Your task to perform on an android device: allow notifications from all sites in the chrome app Image 0: 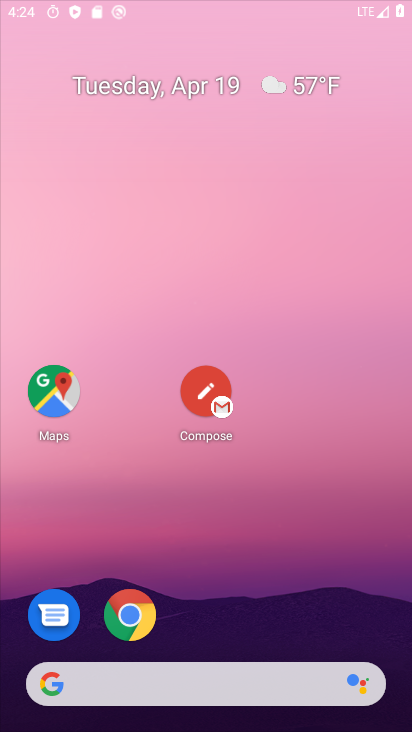
Step 0: drag from (268, 432) to (201, 2)
Your task to perform on an android device: allow notifications from all sites in the chrome app Image 1: 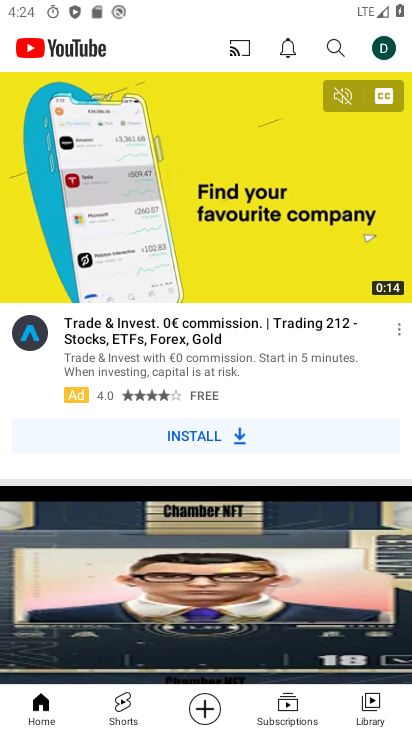
Step 1: press home button
Your task to perform on an android device: allow notifications from all sites in the chrome app Image 2: 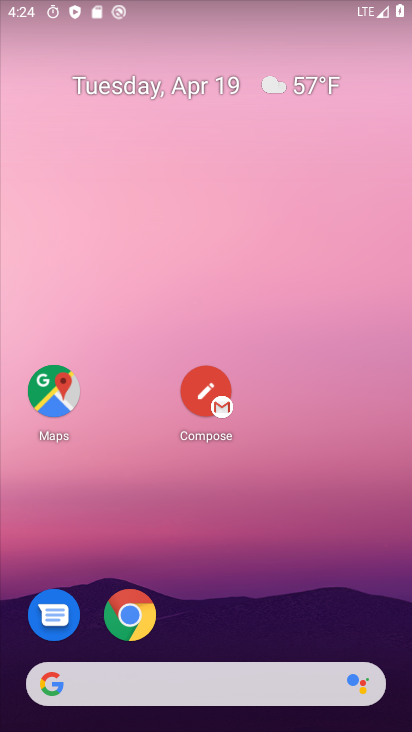
Step 2: drag from (267, 401) to (201, 46)
Your task to perform on an android device: allow notifications from all sites in the chrome app Image 3: 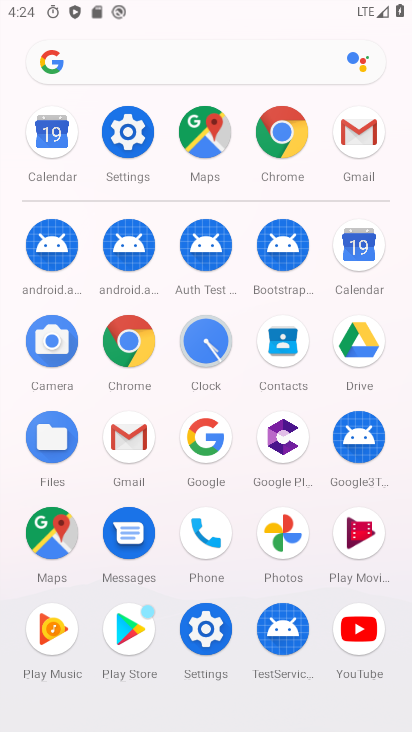
Step 3: click (133, 347)
Your task to perform on an android device: allow notifications from all sites in the chrome app Image 4: 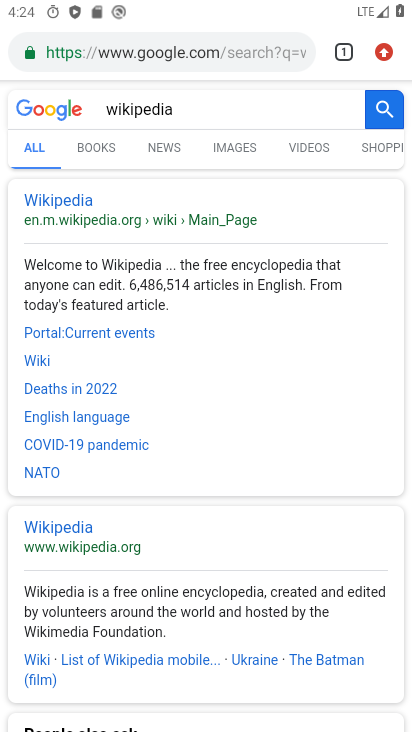
Step 4: click (384, 51)
Your task to perform on an android device: allow notifications from all sites in the chrome app Image 5: 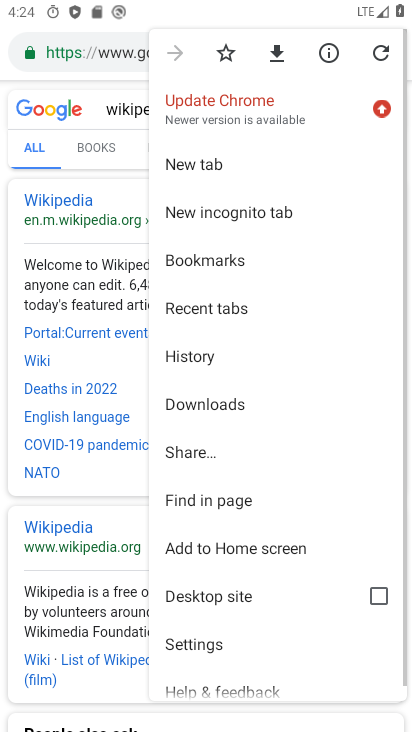
Step 5: drag from (301, 531) to (303, 237)
Your task to perform on an android device: allow notifications from all sites in the chrome app Image 6: 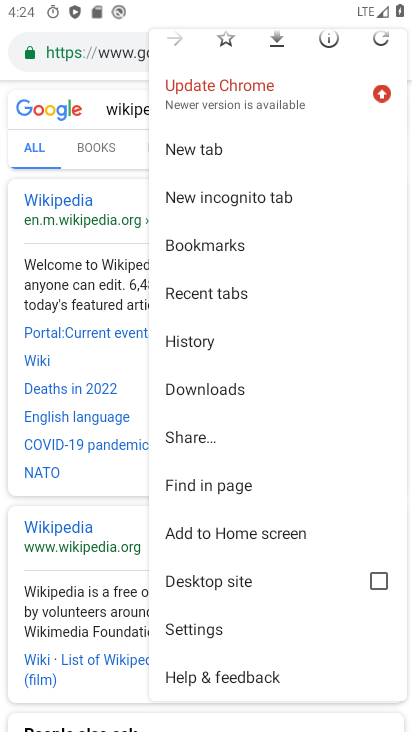
Step 6: click (218, 637)
Your task to perform on an android device: allow notifications from all sites in the chrome app Image 7: 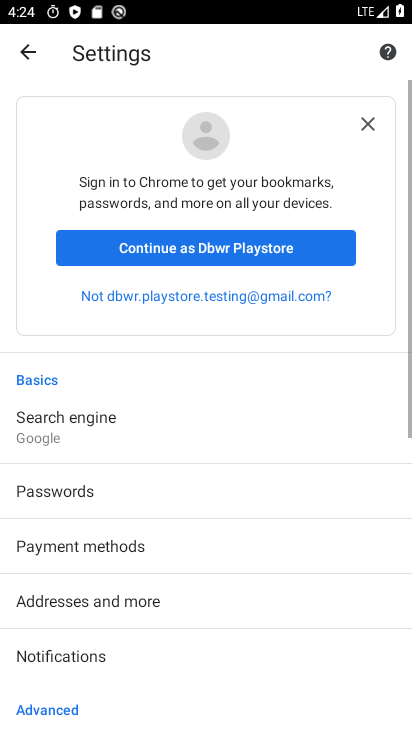
Step 7: drag from (195, 625) to (210, 188)
Your task to perform on an android device: allow notifications from all sites in the chrome app Image 8: 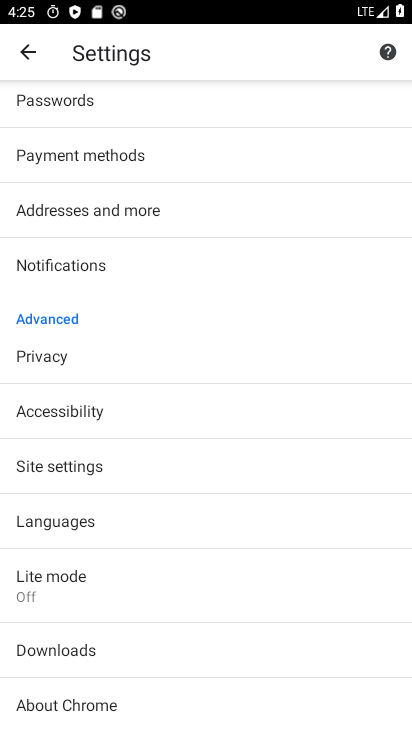
Step 8: click (139, 476)
Your task to perform on an android device: allow notifications from all sites in the chrome app Image 9: 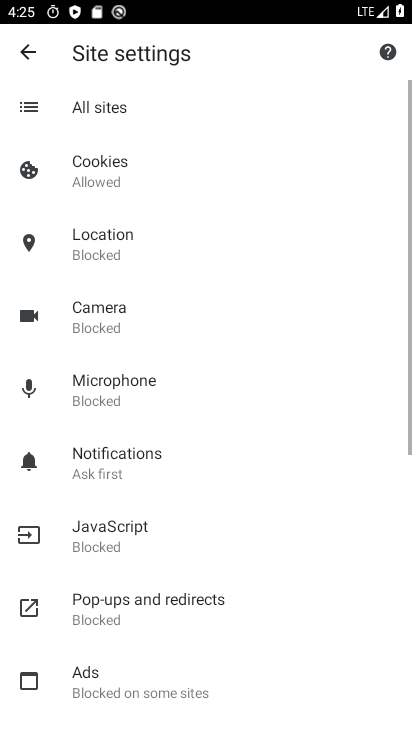
Step 9: drag from (127, 550) to (130, 244)
Your task to perform on an android device: allow notifications from all sites in the chrome app Image 10: 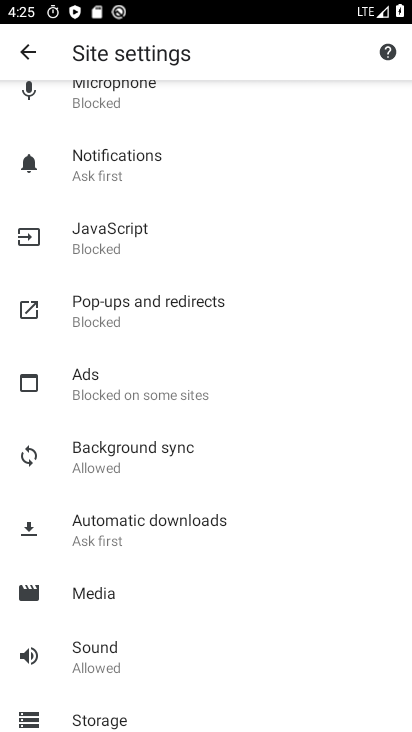
Step 10: click (119, 164)
Your task to perform on an android device: allow notifications from all sites in the chrome app Image 11: 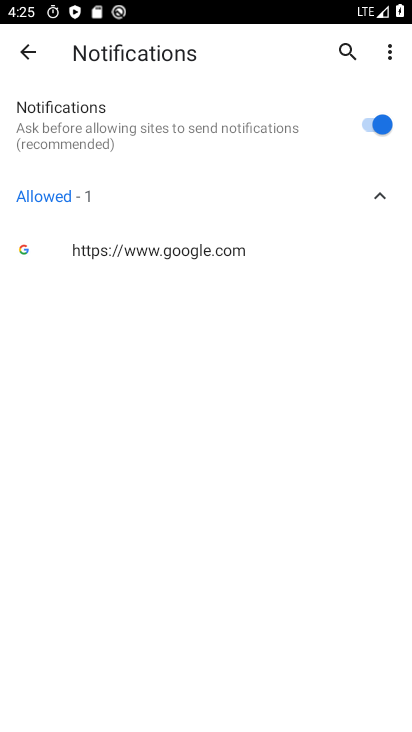
Step 11: click (194, 250)
Your task to perform on an android device: allow notifications from all sites in the chrome app Image 12: 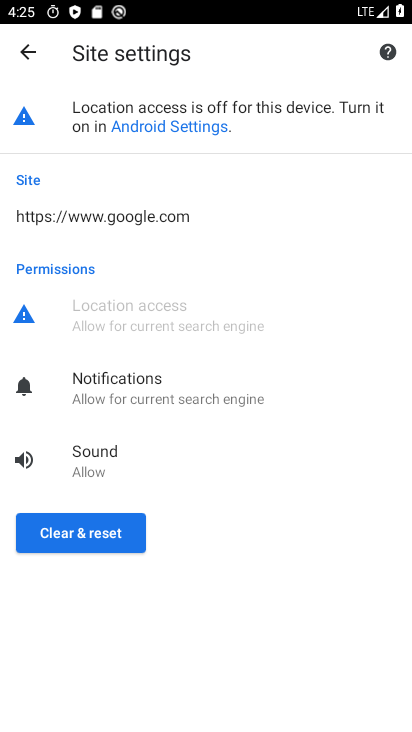
Step 12: click (128, 390)
Your task to perform on an android device: allow notifications from all sites in the chrome app Image 13: 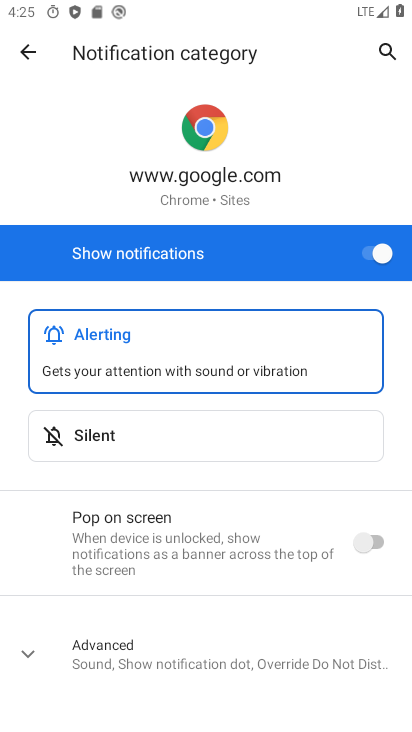
Step 13: task complete